Your task to perform on an android device: Search for Italian restaurants on Maps Image 0: 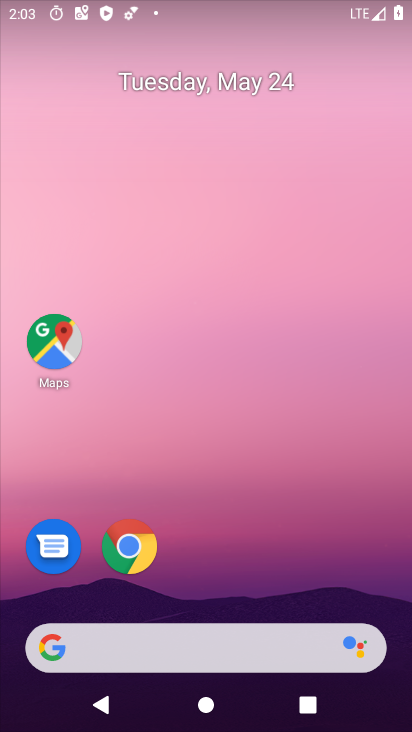
Step 0: click (58, 355)
Your task to perform on an android device: Search for Italian restaurants on Maps Image 1: 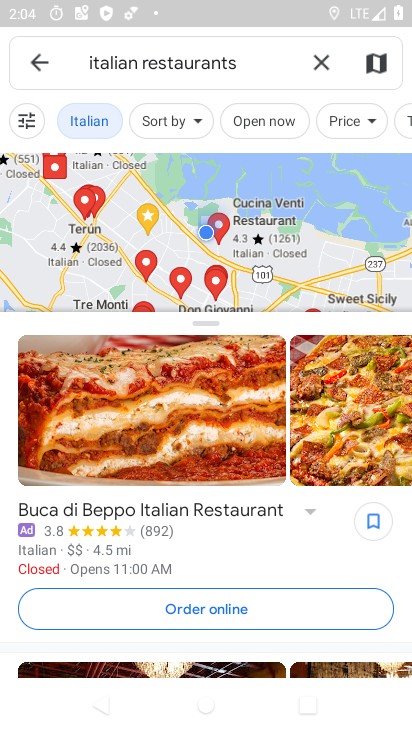
Step 1: task complete